Your task to perform on an android device: turn off picture-in-picture Image 0: 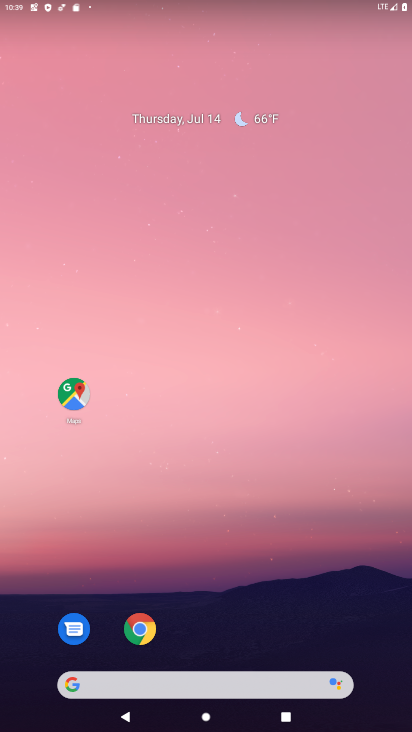
Step 0: press home button
Your task to perform on an android device: turn off picture-in-picture Image 1: 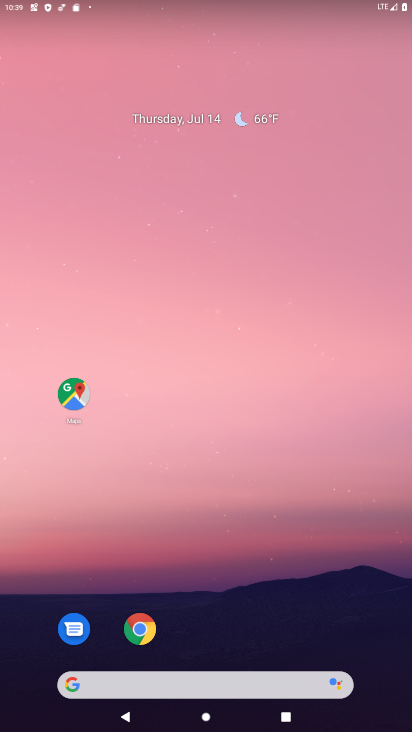
Step 1: click (133, 629)
Your task to perform on an android device: turn off picture-in-picture Image 2: 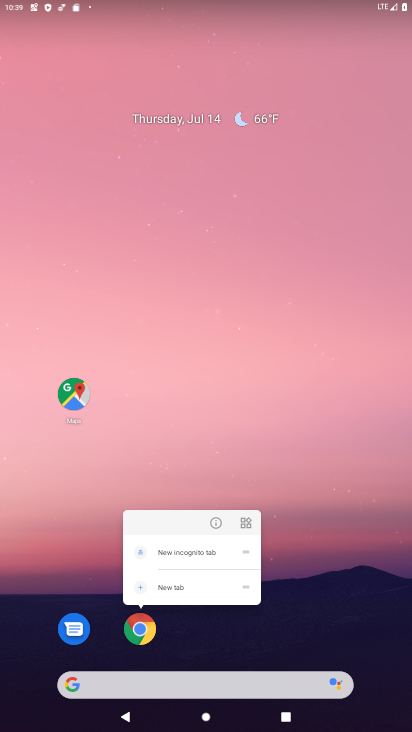
Step 2: click (225, 521)
Your task to perform on an android device: turn off picture-in-picture Image 3: 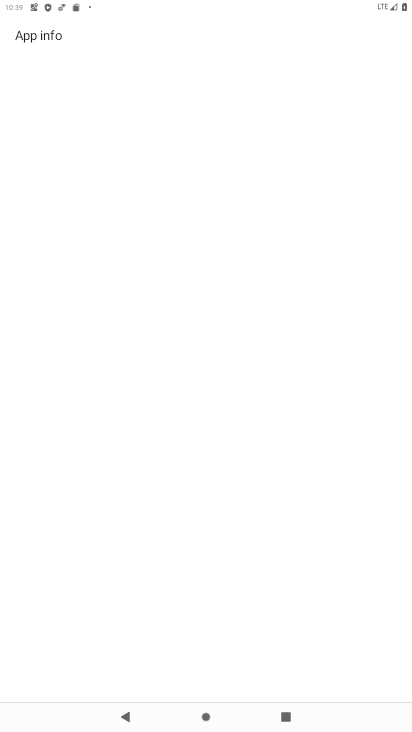
Step 3: click (220, 521)
Your task to perform on an android device: turn off picture-in-picture Image 4: 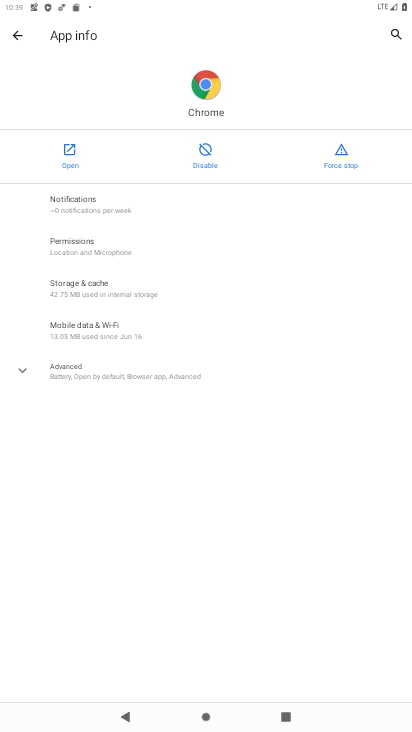
Step 4: click (28, 368)
Your task to perform on an android device: turn off picture-in-picture Image 5: 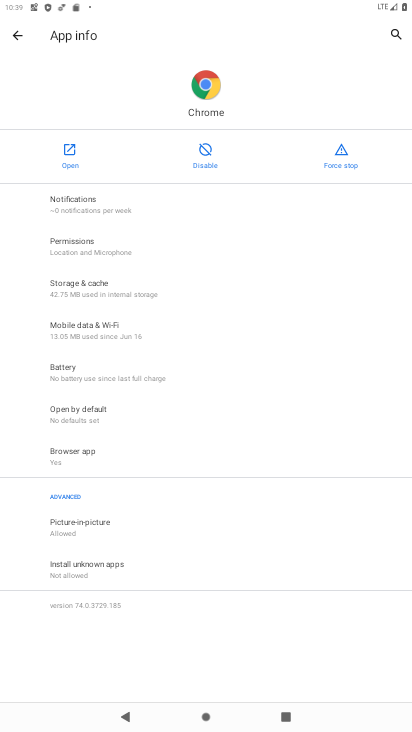
Step 5: click (94, 524)
Your task to perform on an android device: turn off picture-in-picture Image 6: 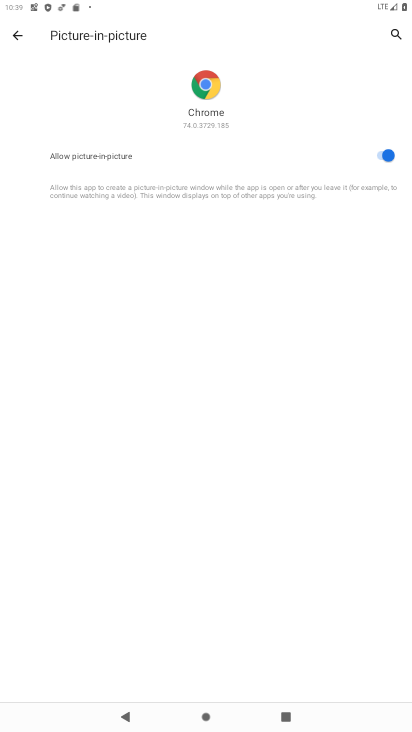
Step 6: click (380, 151)
Your task to perform on an android device: turn off picture-in-picture Image 7: 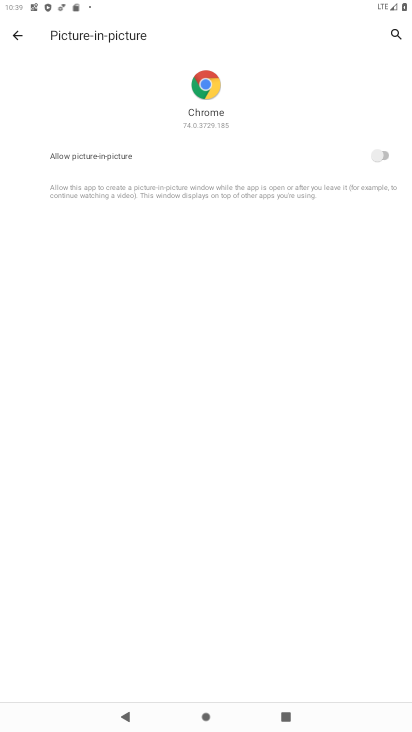
Step 7: task complete